Your task to perform on an android device: Go to Android settings Image 0: 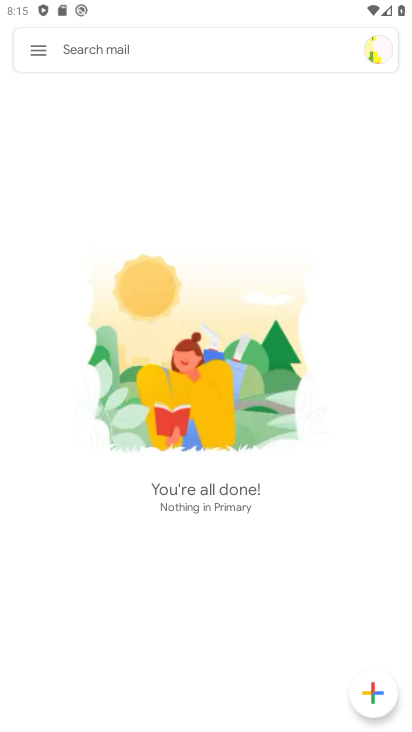
Step 0: press home button
Your task to perform on an android device: Go to Android settings Image 1: 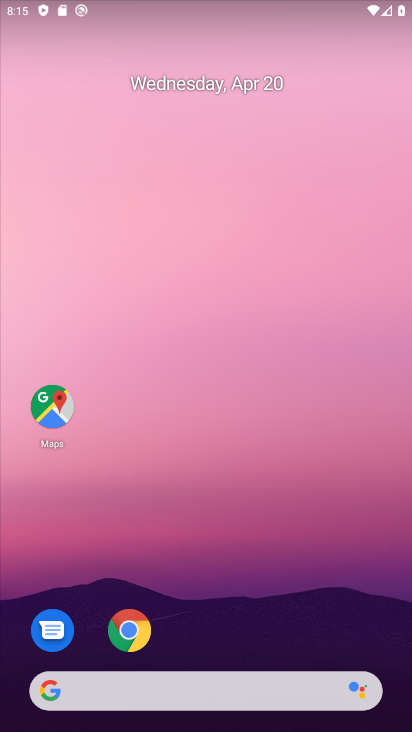
Step 1: drag from (215, 629) to (225, 0)
Your task to perform on an android device: Go to Android settings Image 2: 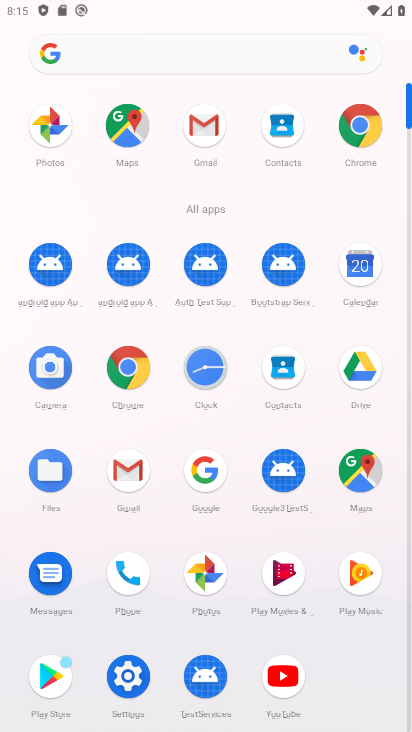
Step 2: click (132, 670)
Your task to perform on an android device: Go to Android settings Image 3: 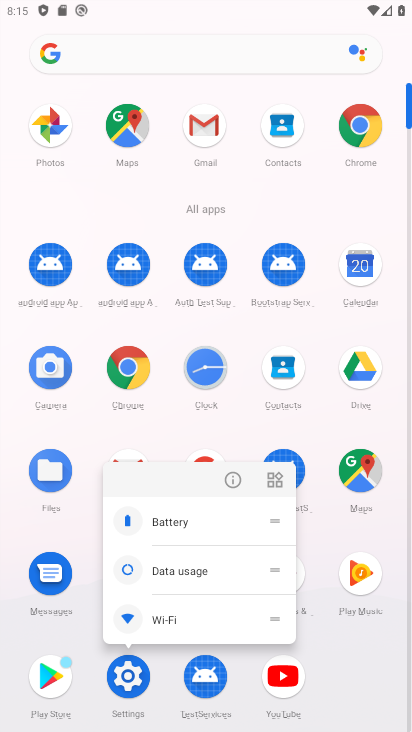
Step 3: click (134, 668)
Your task to perform on an android device: Go to Android settings Image 4: 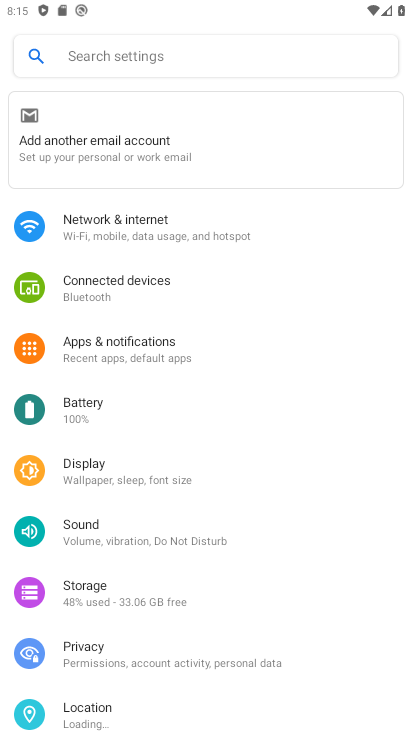
Step 4: drag from (153, 521) to (226, 10)
Your task to perform on an android device: Go to Android settings Image 5: 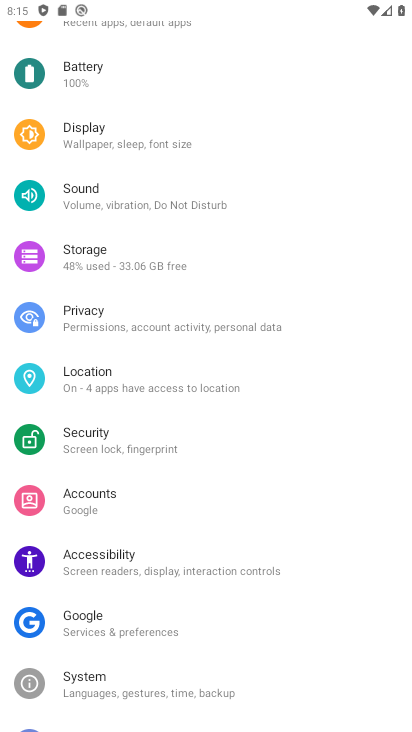
Step 5: drag from (104, 664) to (221, 189)
Your task to perform on an android device: Go to Android settings Image 6: 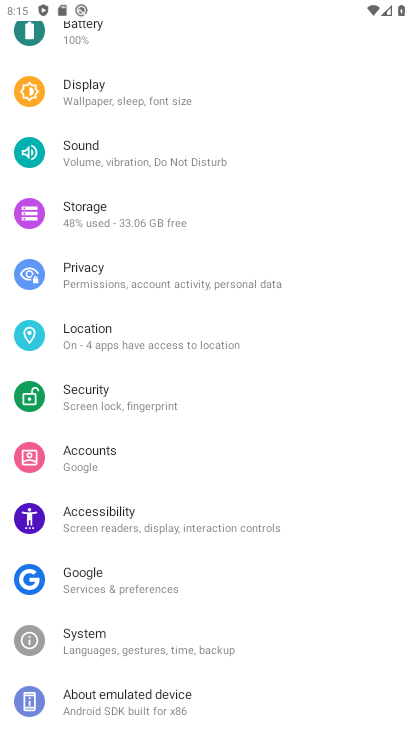
Step 6: click (105, 697)
Your task to perform on an android device: Go to Android settings Image 7: 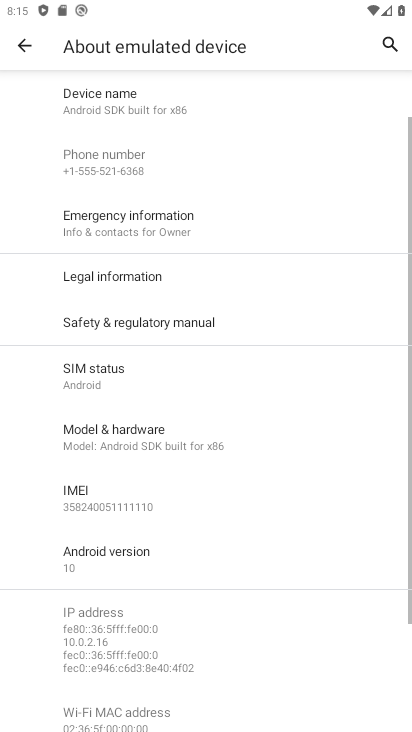
Step 7: task complete